Your task to perform on an android device: empty trash in google photos Image 0: 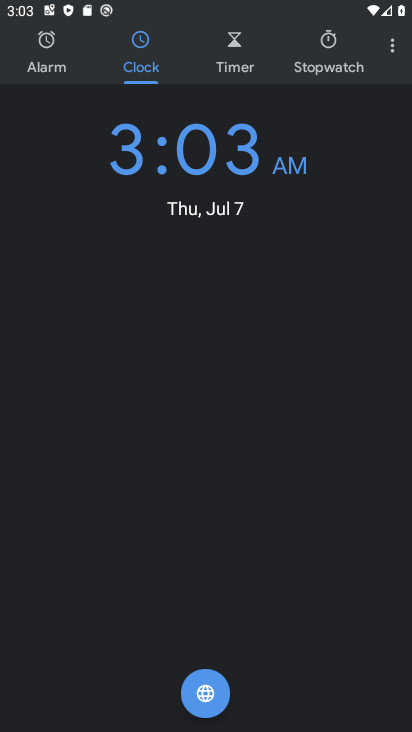
Step 0: press home button
Your task to perform on an android device: empty trash in google photos Image 1: 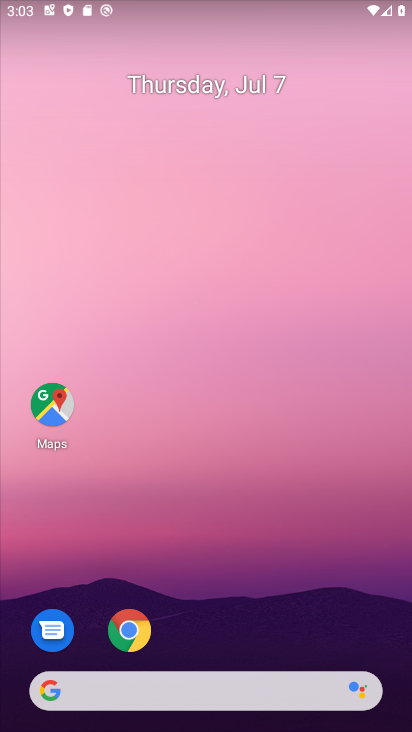
Step 1: drag from (211, 657) to (280, 108)
Your task to perform on an android device: empty trash in google photos Image 2: 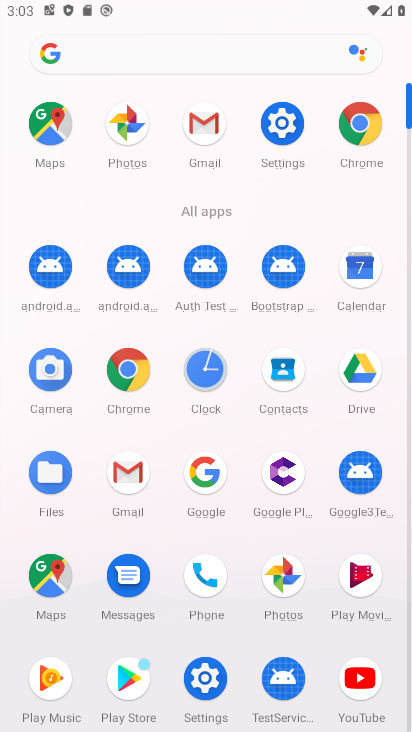
Step 2: click (288, 577)
Your task to perform on an android device: empty trash in google photos Image 3: 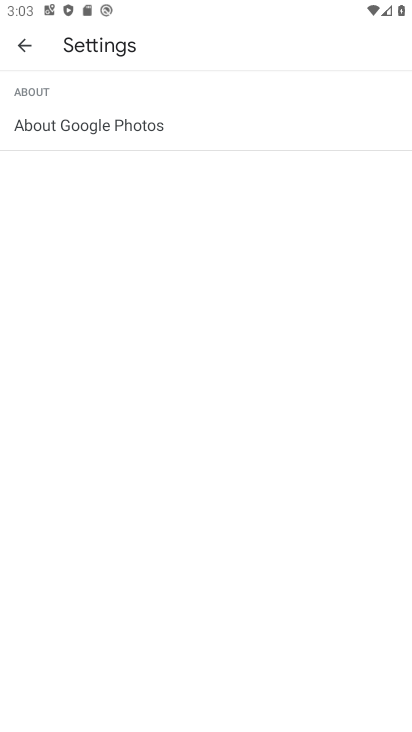
Step 3: click (24, 41)
Your task to perform on an android device: empty trash in google photos Image 4: 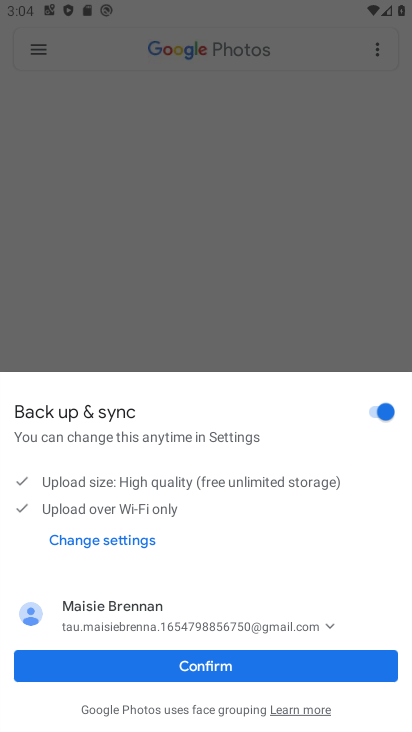
Step 4: click (206, 664)
Your task to perform on an android device: empty trash in google photos Image 5: 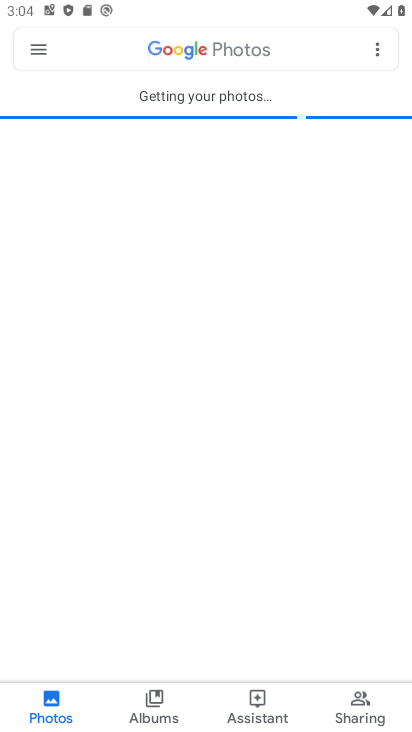
Step 5: click (41, 49)
Your task to perform on an android device: empty trash in google photos Image 6: 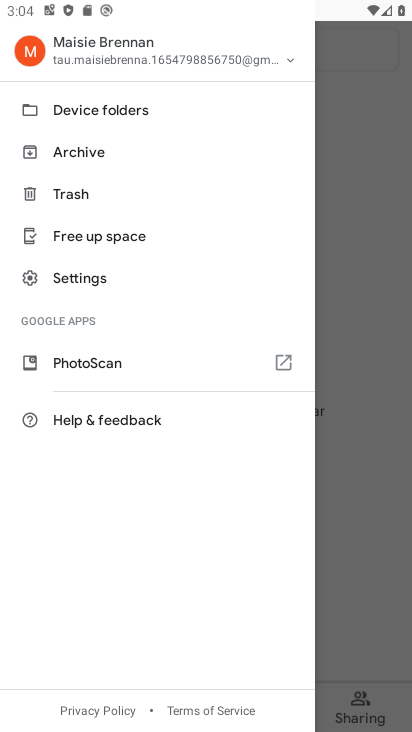
Step 6: click (75, 184)
Your task to perform on an android device: empty trash in google photos Image 7: 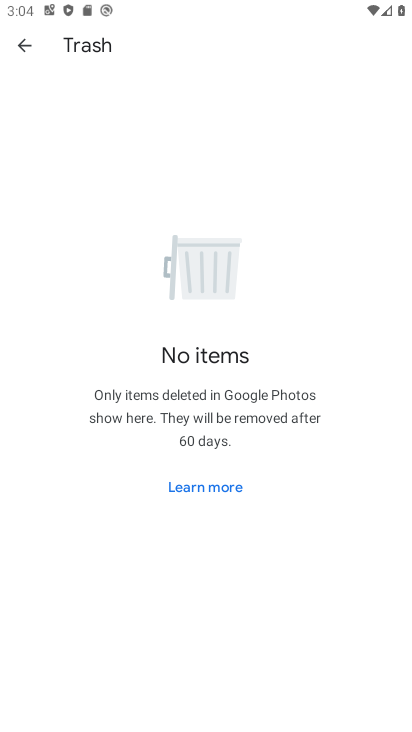
Step 7: task complete